Your task to perform on an android device: turn smart compose on in the gmail app Image 0: 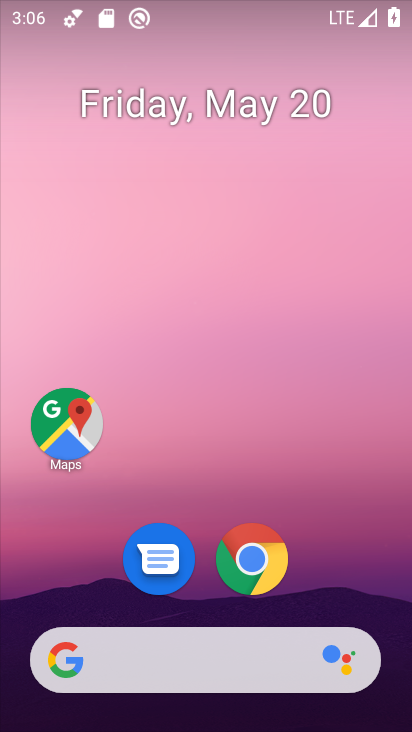
Step 0: drag from (224, 460) to (225, 40)
Your task to perform on an android device: turn smart compose on in the gmail app Image 1: 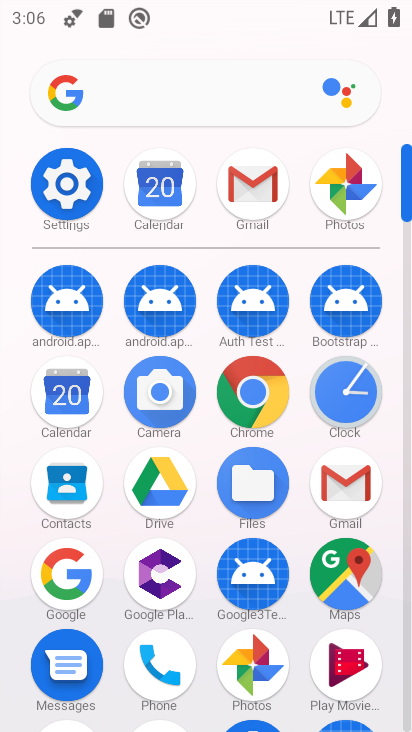
Step 1: click (243, 183)
Your task to perform on an android device: turn smart compose on in the gmail app Image 2: 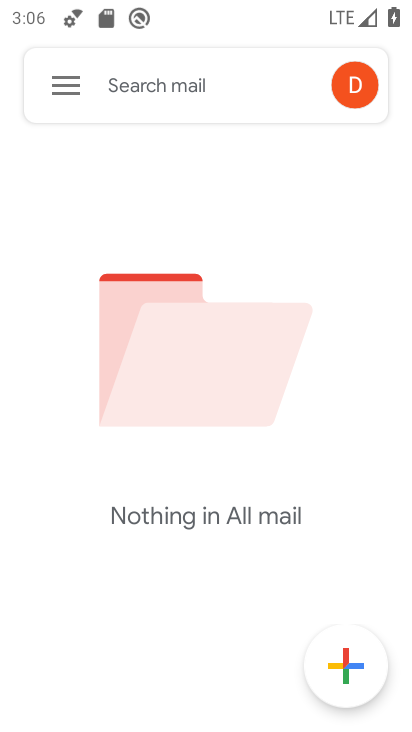
Step 2: click (65, 79)
Your task to perform on an android device: turn smart compose on in the gmail app Image 3: 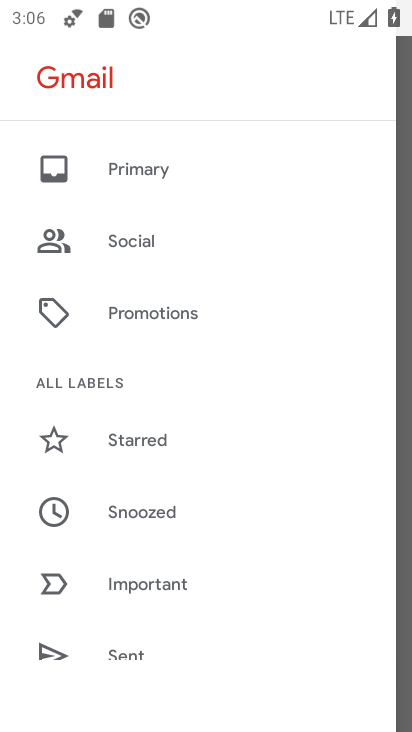
Step 3: drag from (231, 497) to (234, 96)
Your task to perform on an android device: turn smart compose on in the gmail app Image 4: 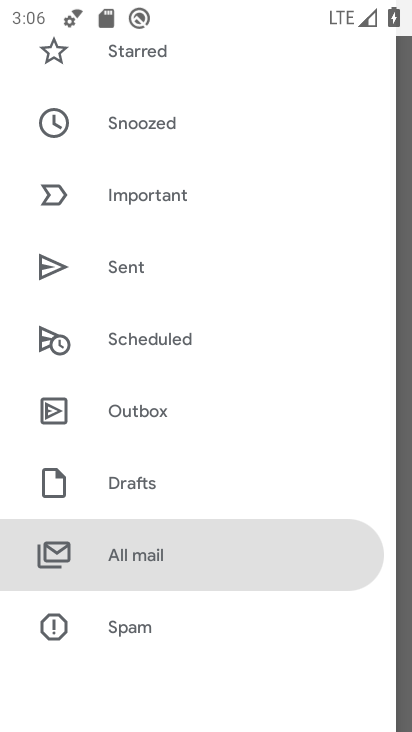
Step 4: drag from (226, 378) to (253, 73)
Your task to perform on an android device: turn smart compose on in the gmail app Image 5: 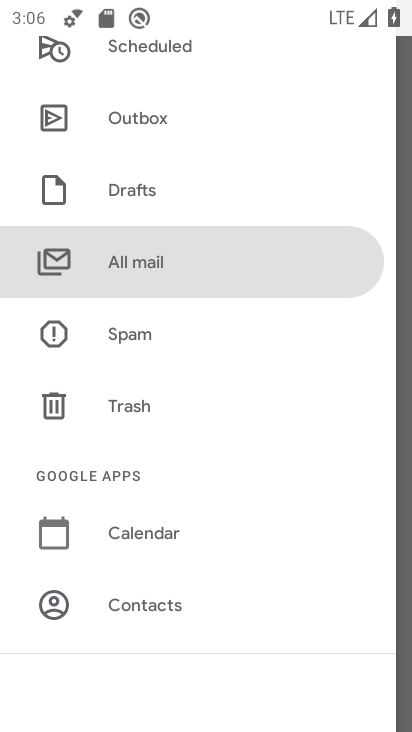
Step 5: drag from (220, 395) to (236, 111)
Your task to perform on an android device: turn smart compose on in the gmail app Image 6: 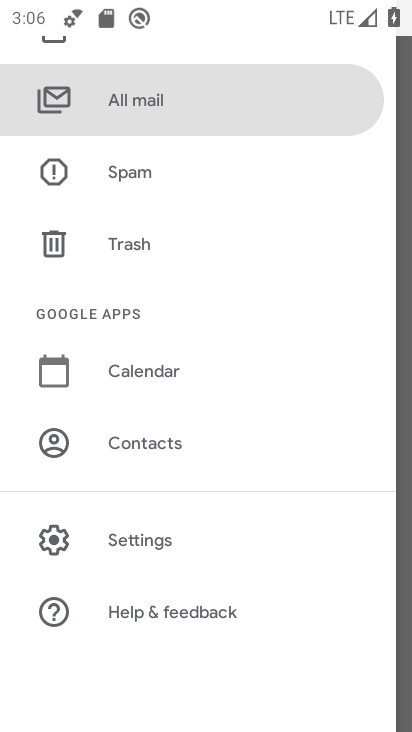
Step 6: click (160, 532)
Your task to perform on an android device: turn smart compose on in the gmail app Image 7: 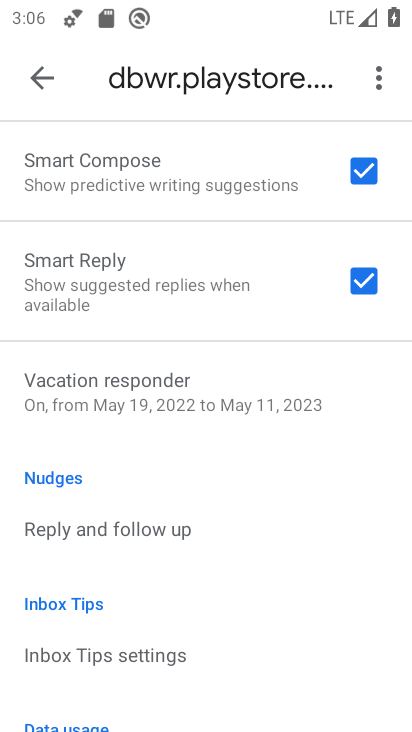
Step 7: task complete